Your task to perform on an android device: Empty the shopping cart on costco. Add energizer triple a to the cart on costco, then select checkout. Image 0: 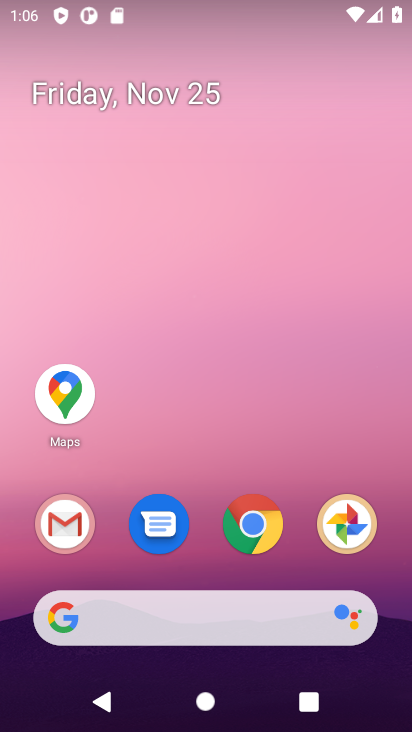
Step 0: click (257, 527)
Your task to perform on an android device: Empty the shopping cart on costco. Add energizer triple a to the cart on costco, then select checkout. Image 1: 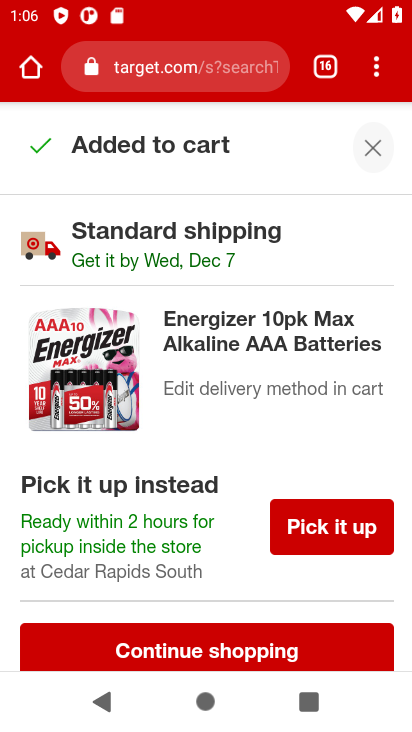
Step 1: click (157, 70)
Your task to perform on an android device: Empty the shopping cart on costco. Add energizer triple a to the cart on costco, then select checkout. Image 2: 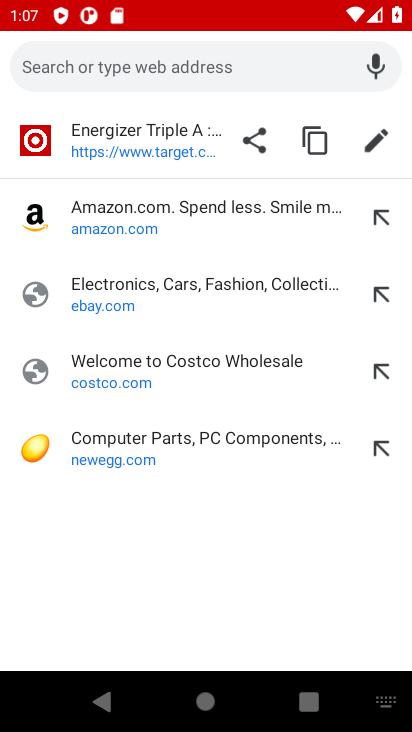
Step 2: click (104, 384)
Your task to perform on an android device: Empty the shopping cart on costco. Add energizer triple a to the cart on costco, then select checkout. Image 3: 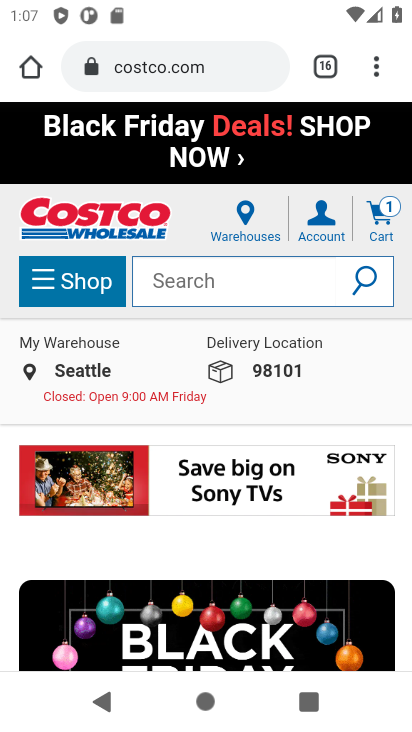
Step 3: click (379, 214)
Your task to perform on an android device: Empty the shopping cart on costco. Add energizer triple a to the cart on costco, then select checkout. Image 4: 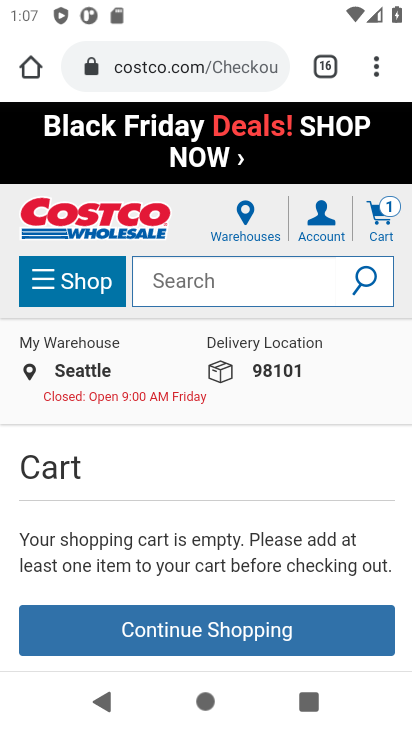
Step 4: drag from (241, 442) to (251, 320)
Your task to perform on an android device: Empty the shopping cart on costco. Add energizer triple a to the cart on costco, then select checkout. Image 5: 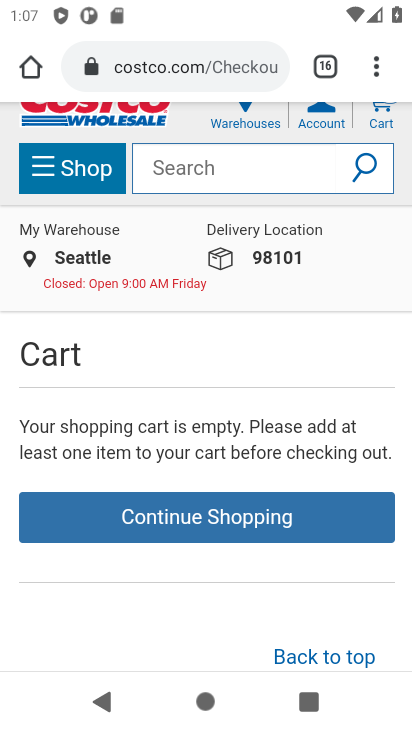
Step 5: click (178, 168)
Your task to perform on an android device: Empty the shopping cart on costco. Add energizer triple a to the cart on costco, then select checkout. Image 6: 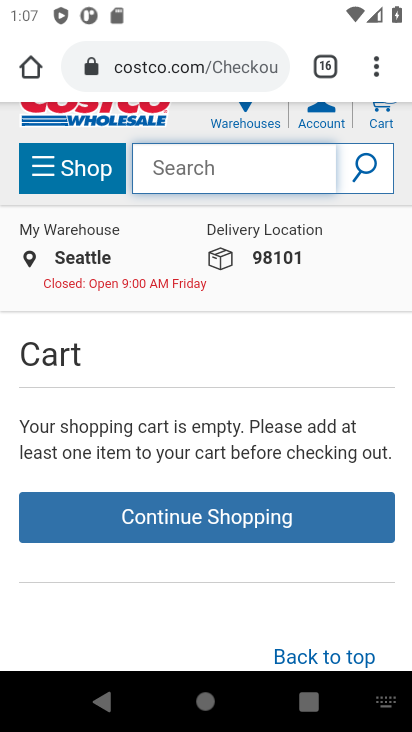
Step 6: type "energizer triple a"
Your task to perform on an android device: Empty the shopping cart on costco. Add energizer triple a to the cart on costco, then select checkout. Image 7: 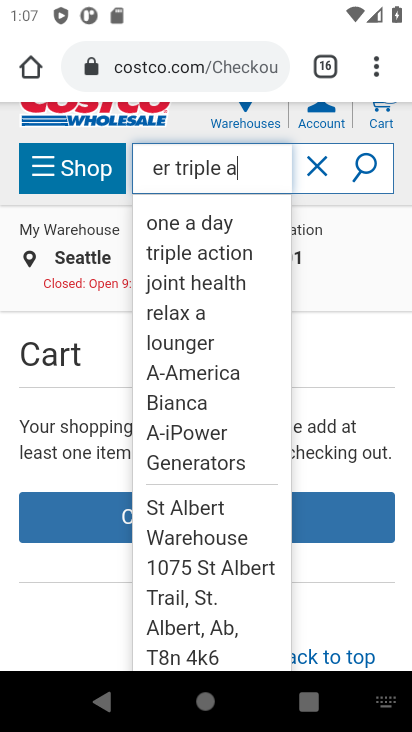
Step 7: click (369, 165)
Your task to perform on an android device: Empty the shopping cart on costco. Add energizer triple a to the cart on costco, then select checkout. Image 8: 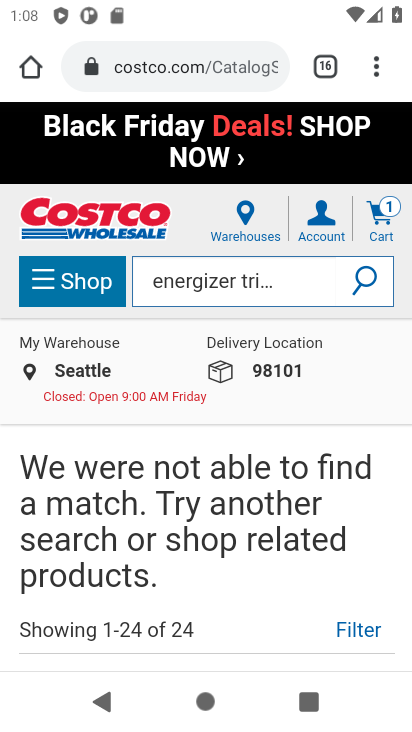
Step 8: task complete